Your task to perform on an android device: turn off notifications in google photos Image 0: 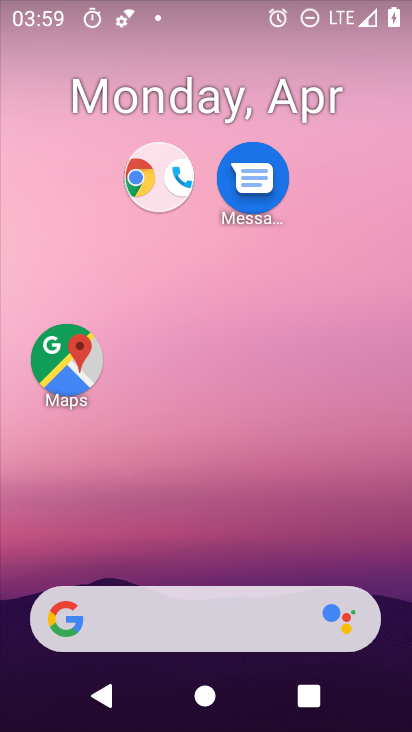
Step 0: drag from (164, 494) to (251, 4)
Your task to perform on an android device: turn off notifications in google photos Image 1: 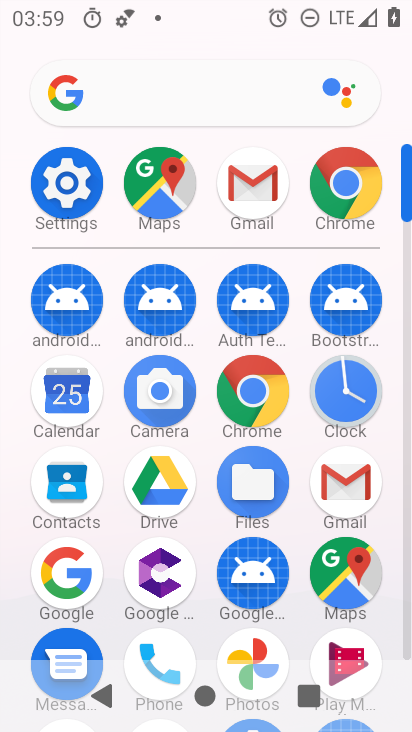
Step 1: drag from (296, 618) to (305, 250)
Your task to perform on an android device: turn off notifications in google photos Image 2: 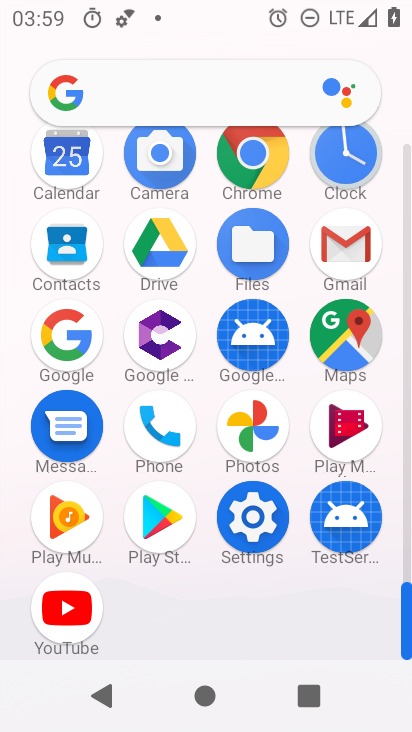
Step 2: click (262, 434)
Your task to perform on an android device: turn off notifications in google photos Image 3: 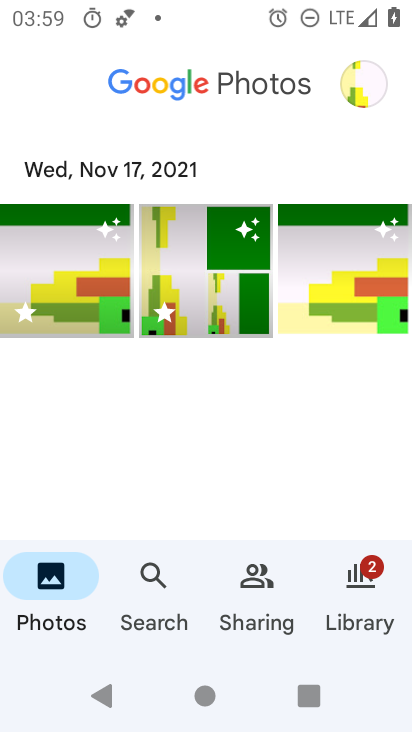
Step 3: click (349, 85)
Your task to perform on an android device: turn off notifications in google photos Image 4: 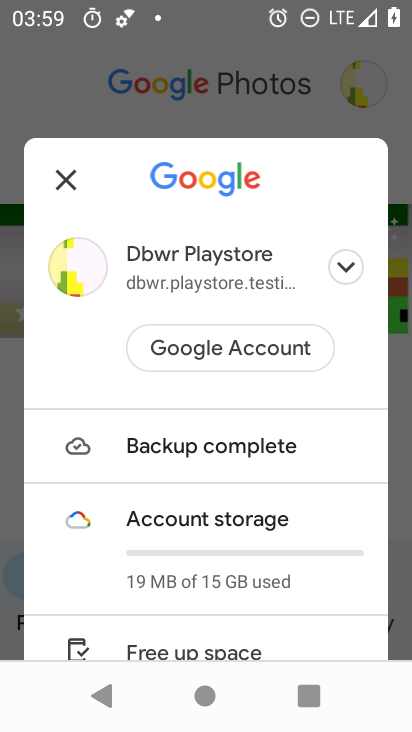
Step 4: drag from (271, 643) to (301, 177)
Your task to perform on an android device: turn off notifications in google photos Image 5: 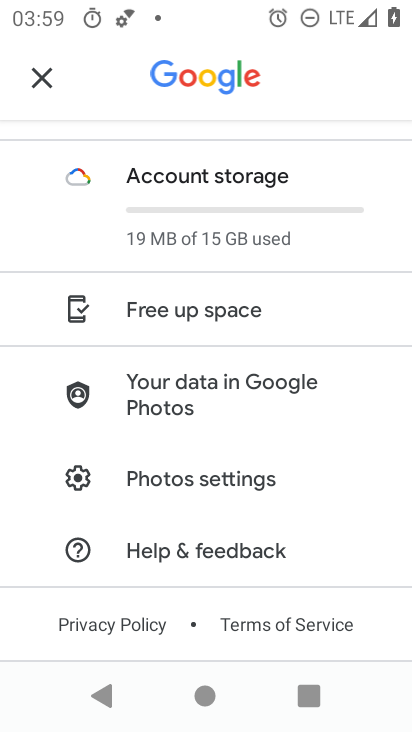
Step 5: click (267, 486)
Your task to perform on an android device: turn off notifications in google photos Image 6: 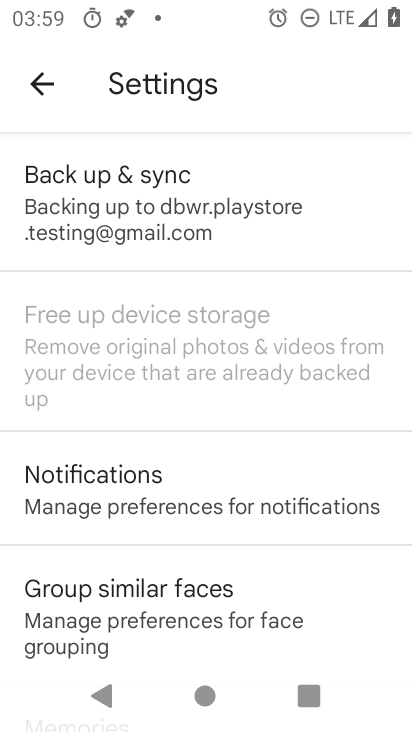
Step 6: drag from (276, 586) to (322, 255)
Your task to perform on an android device: turn off notifications in google photos Image 7: 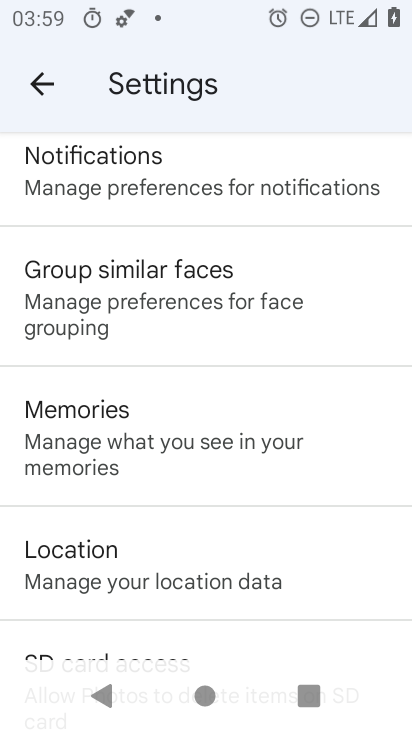
Step 7: drag from (244, 620) to (248, 129)
Your task to perform on an android device: turn off notifications in google photos Image 8: 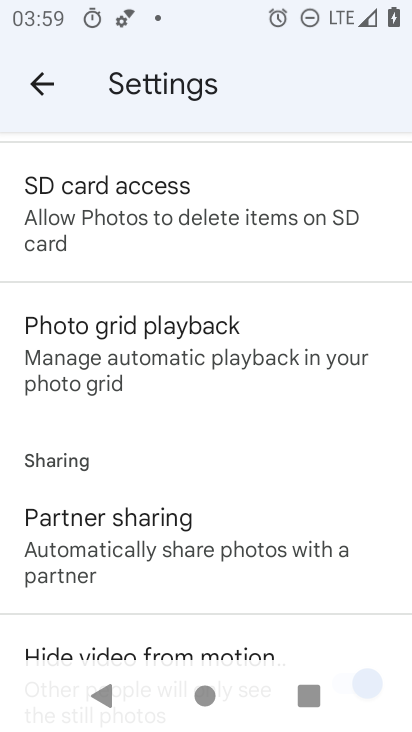
Step 8: drag from (243, 185) to (238, 690)
Your task to perform on an android device: turn off notifications in google photos Image 9: 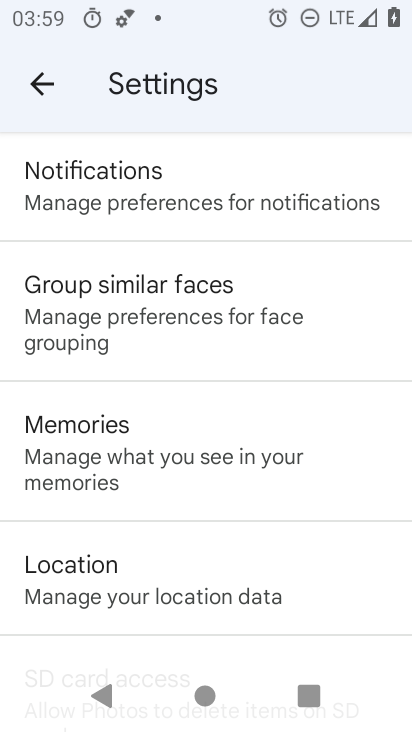
Step 9: click (249, 210)
Your task to perform on an android device: turn off notifications in google photos Image 10: 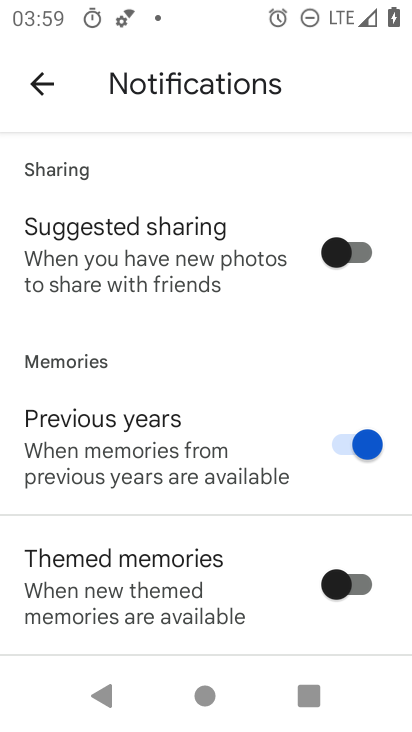
Step 10: drag from (213, 614) to (246, 103)
Your task to perform on an android device: turn off notifications in google photos Image 11: 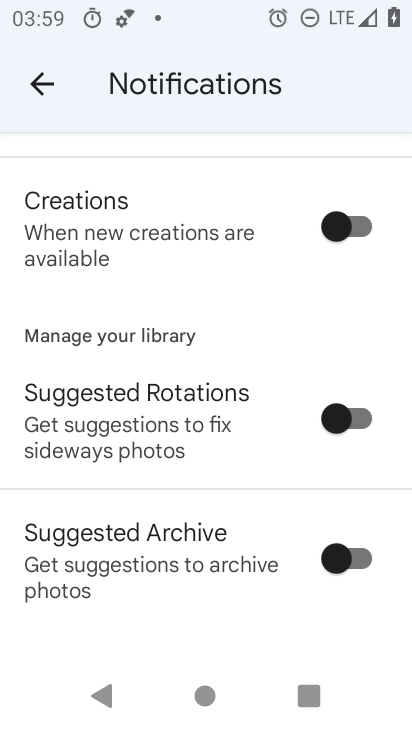
Step 11: drag from (235, 635) to (303, 125)
Your task to perform on an android device: turn off notifications in google photos Image 12: 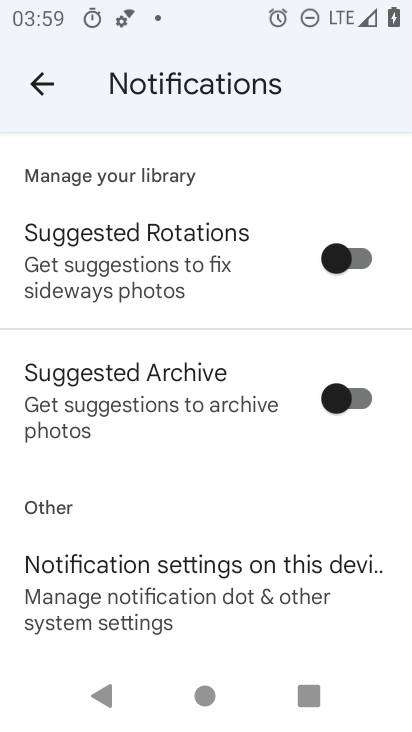
Step 12: click (281, 602)
Your task to perform on an android device: turn off notifications in google photos Image 13: 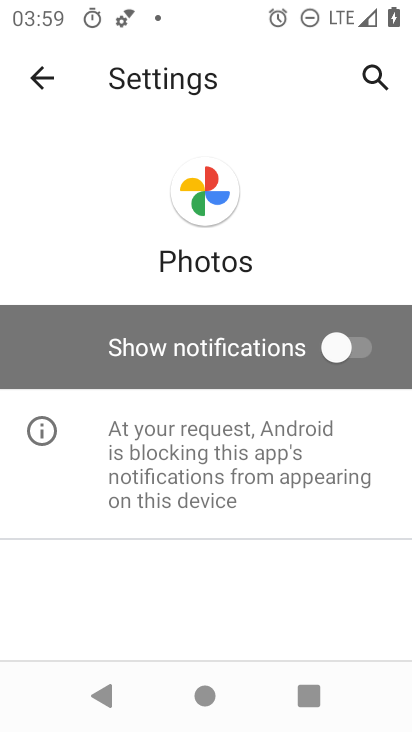
Step 13: task complete